Your task to perform on an android device: install app "LinkedIn" Image 0: 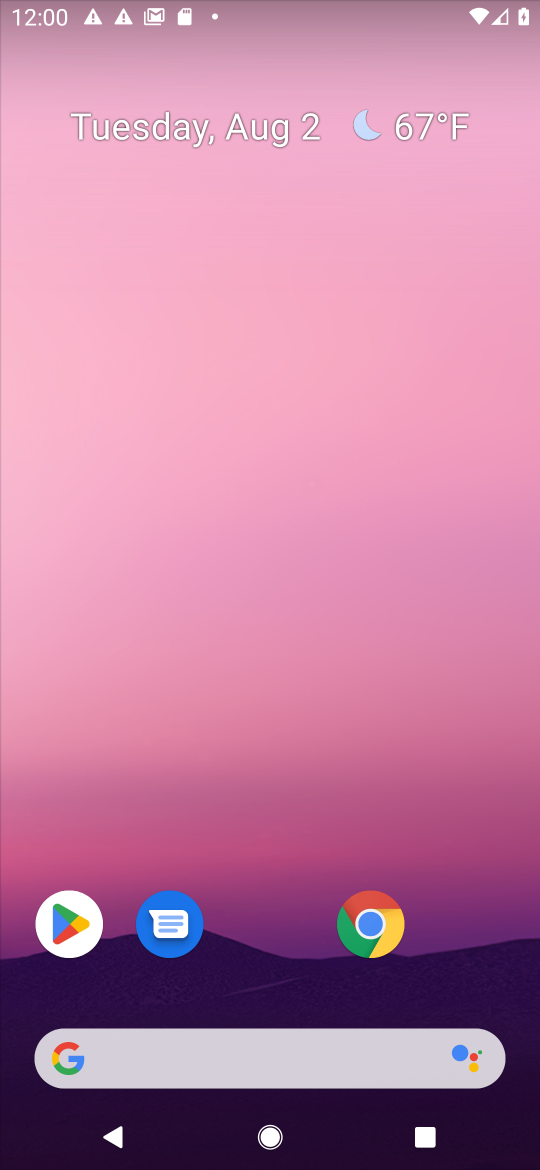
Step 0: press home button
Your task to perform on an android device: install app "LinkedIn" Image 1: 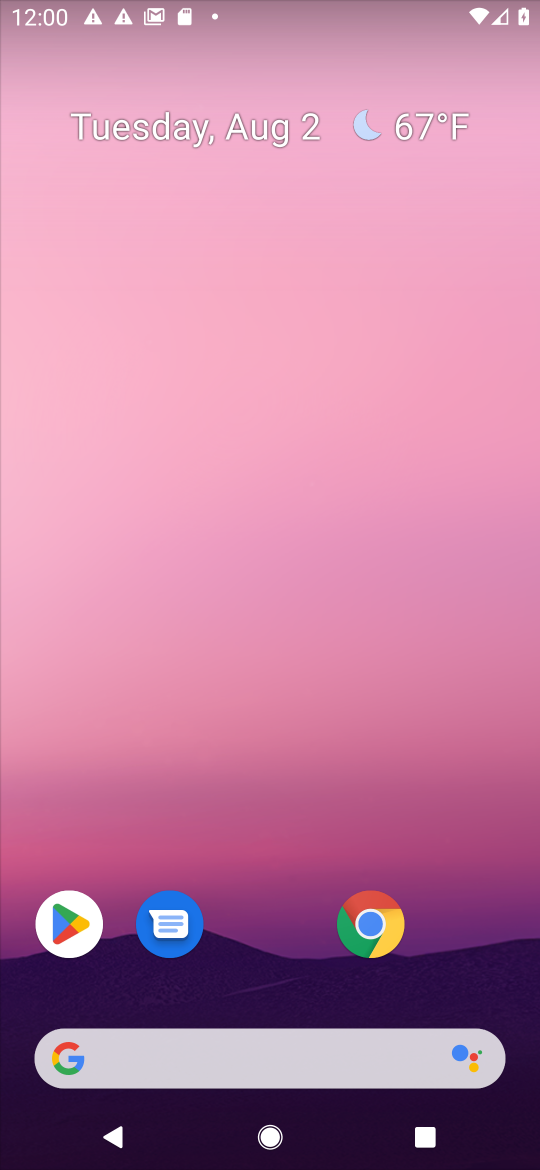
Step 1: click (53, 921)
Your task to perform on an android device: install app "LinkedIn" Image 2: 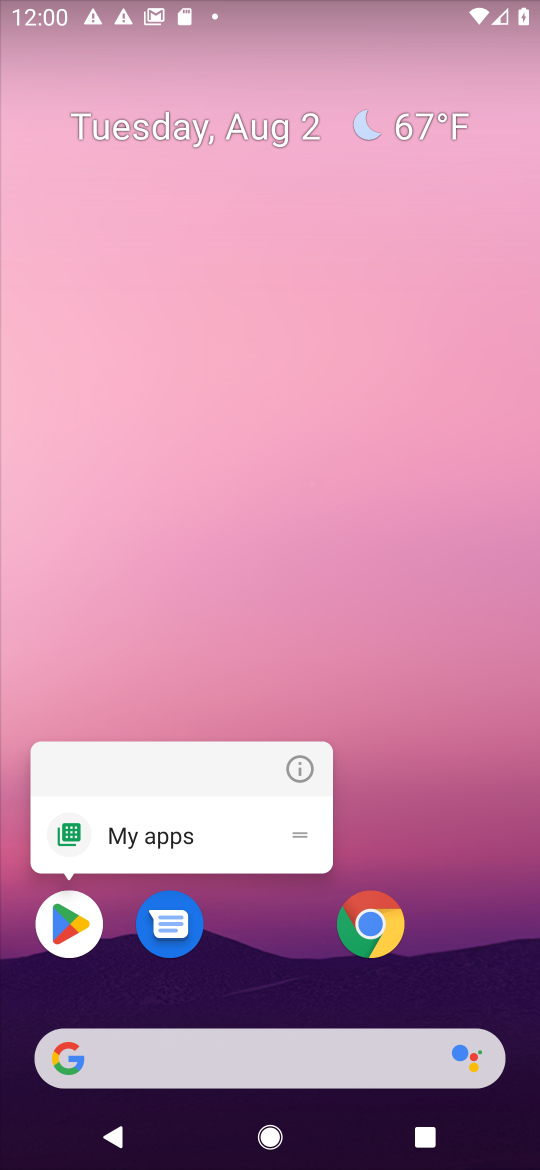
Step 2: click (76, 937)
Your task to perform on an android device: install app "LinkedIn" Image 3: 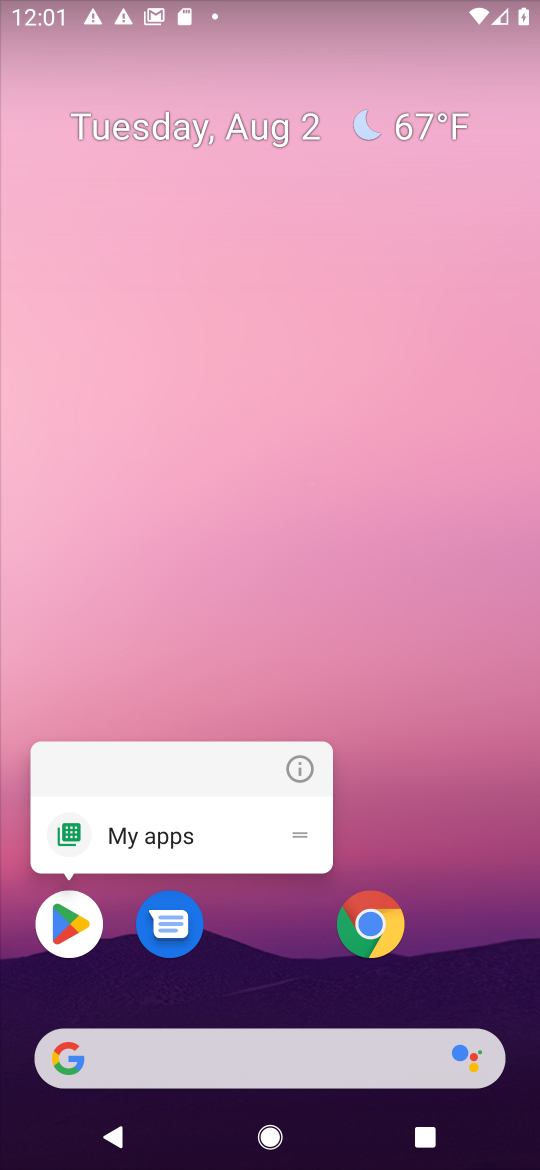
Step 3: click (58, 918)
Your task to perform on an android device: install app "LinkedIn" Image 4: 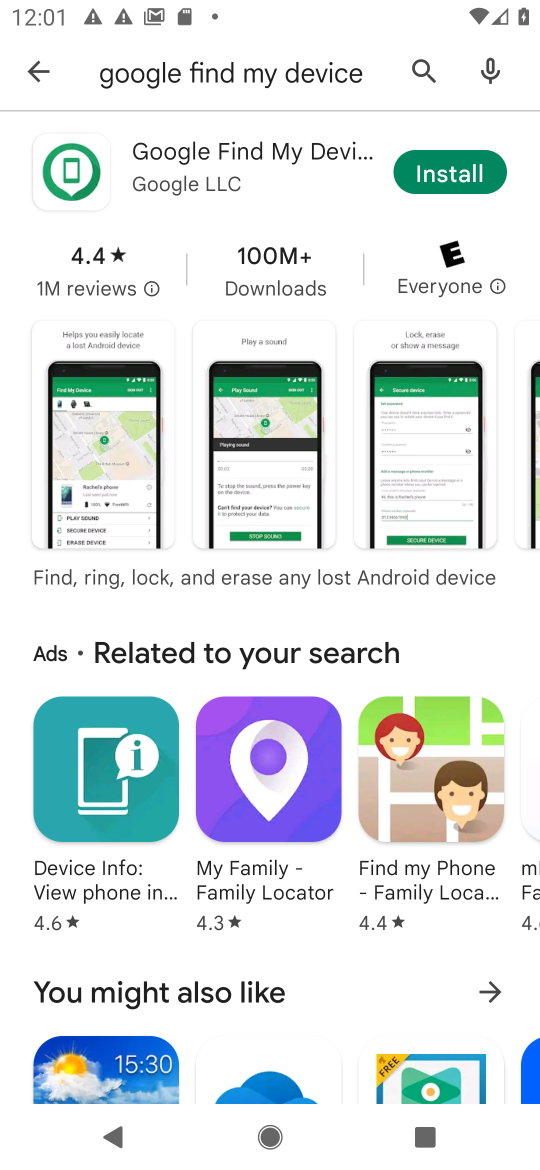
Step 4: click (415, 64)
Your task to perform on an android device: install app "LinkedIn" Image 5: 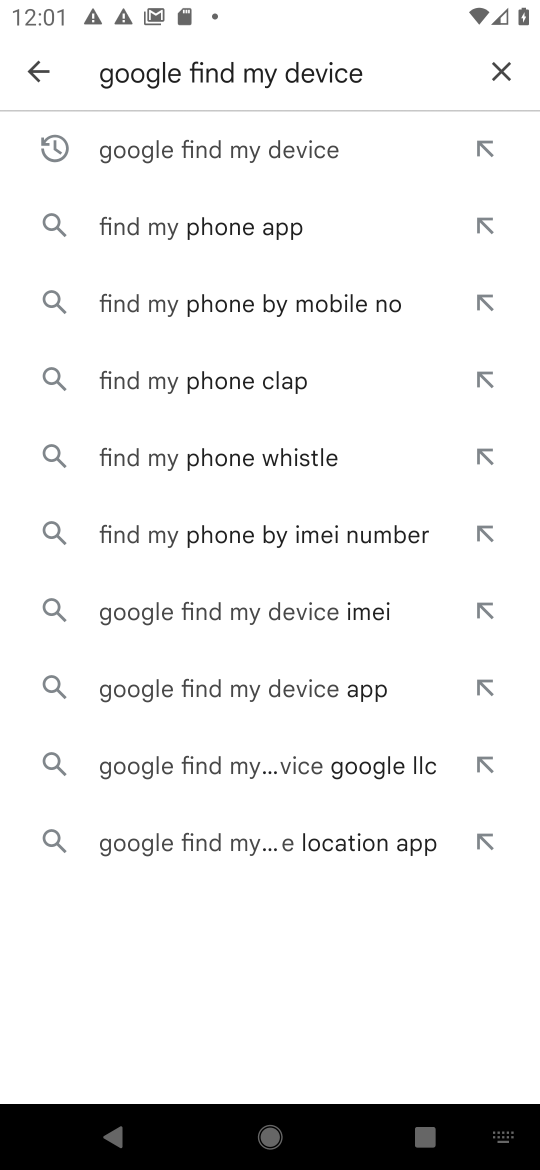
Step 5: click (487, 76)
Your task to perform on an android device: install app "LinkedIn" Image 6: 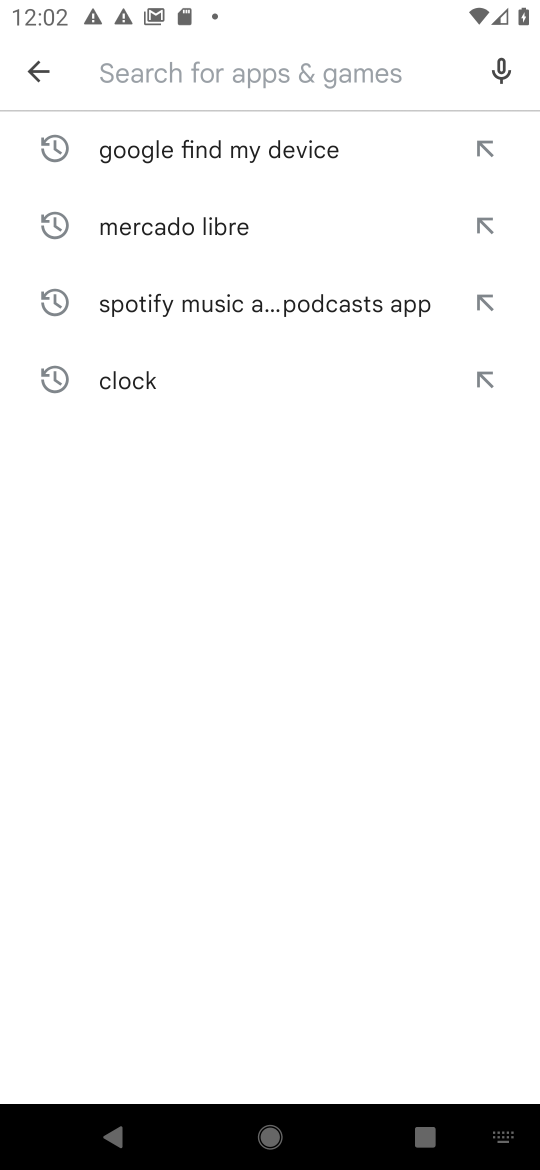
Step 6: type "LinkedIn"
Your task to perform on an android device: install app "LinkedIn" Image 7: 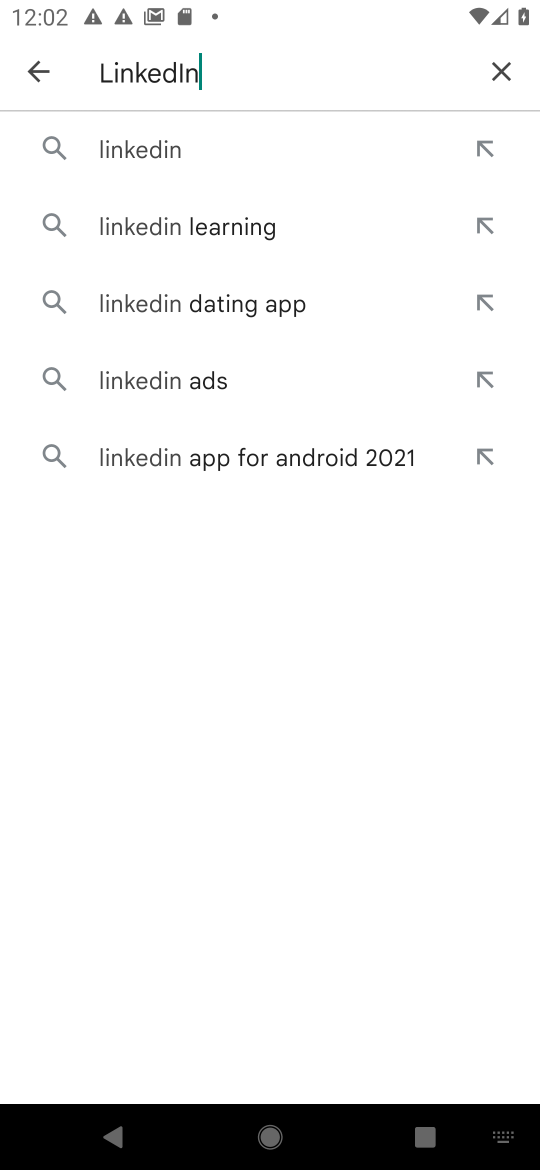
Step 7: click (156, 146)
Your task to perform on an android device: install app "LinkedIn" Image 8: 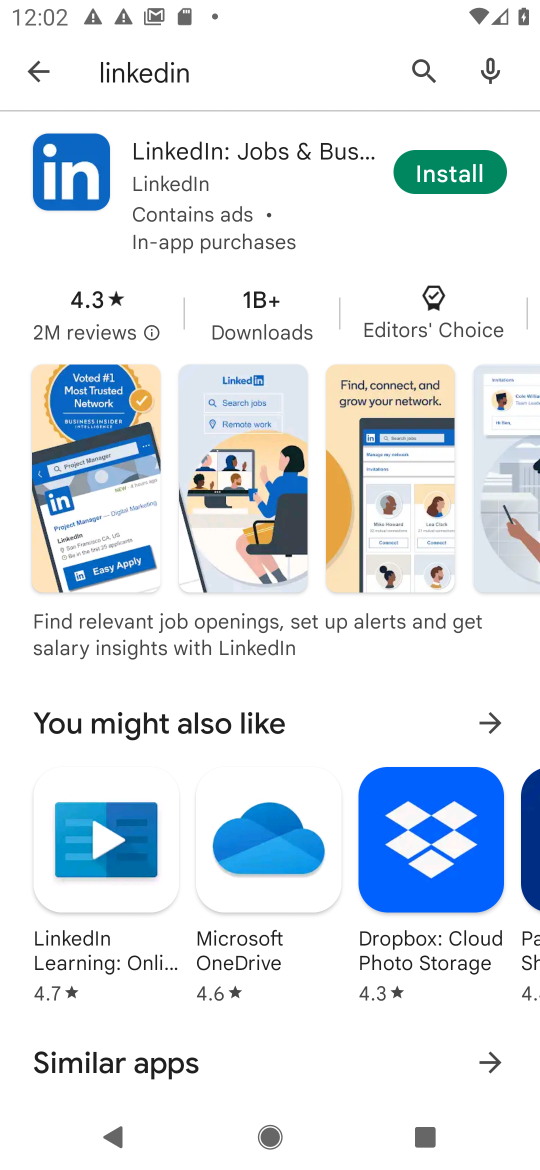
Step 8: click (462, 172)
Your task to perform on an android device: install app "LinkedIn" Image 9: 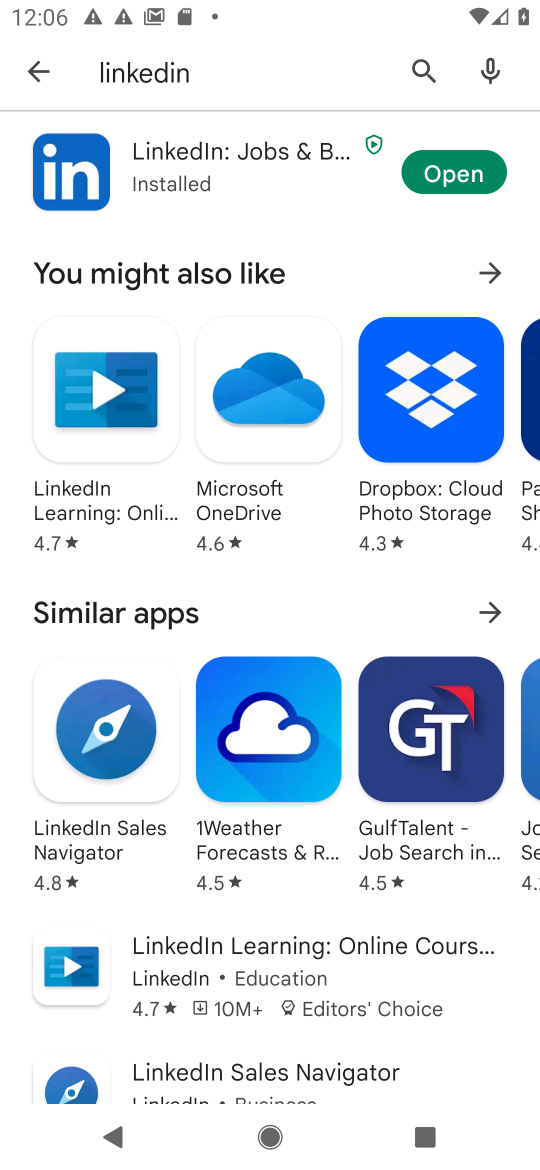
Step 9: click (449, 162)
Your task to perform on an android device: install app "LinkedIn" Image 10: 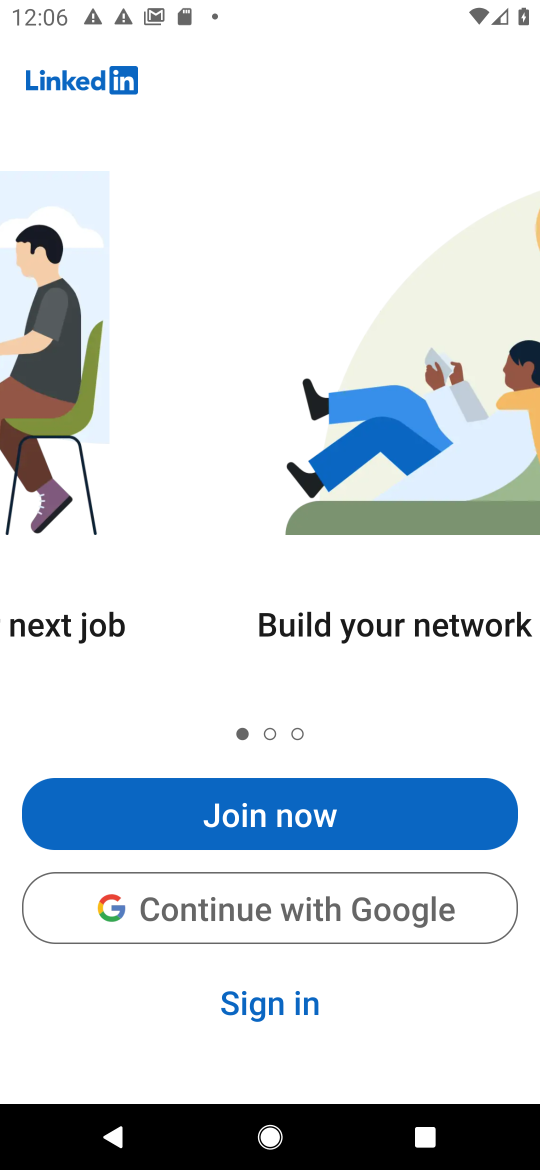
Step 10: click (279, 903)
Your task to perform on an android device: install app "LinkedIn" Image 11: 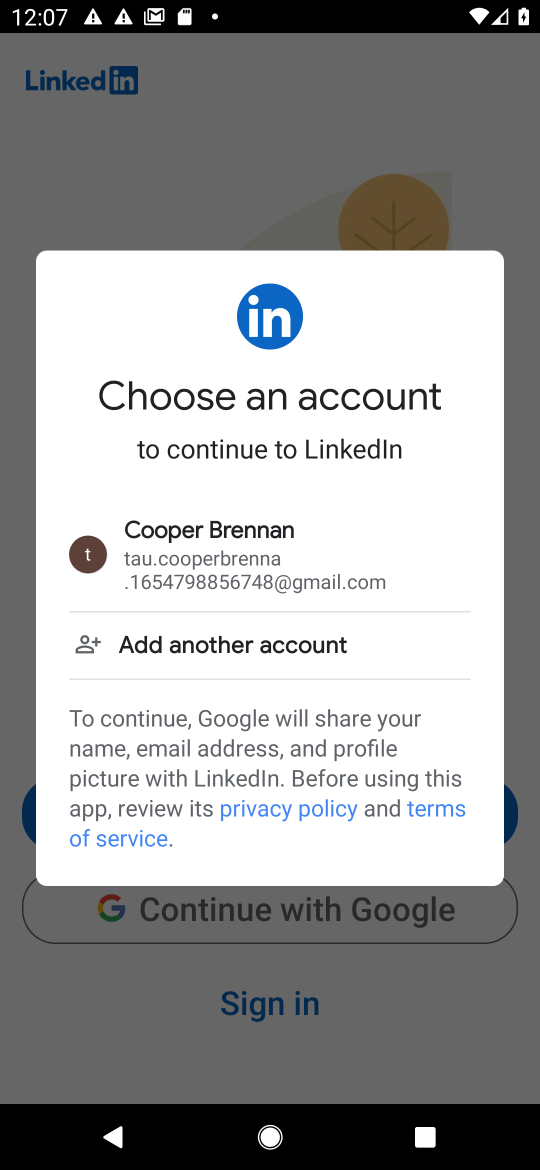
Step 11: click (221, 537)
Your task to perform on an android device: install app "LinkedIn" Image 12: 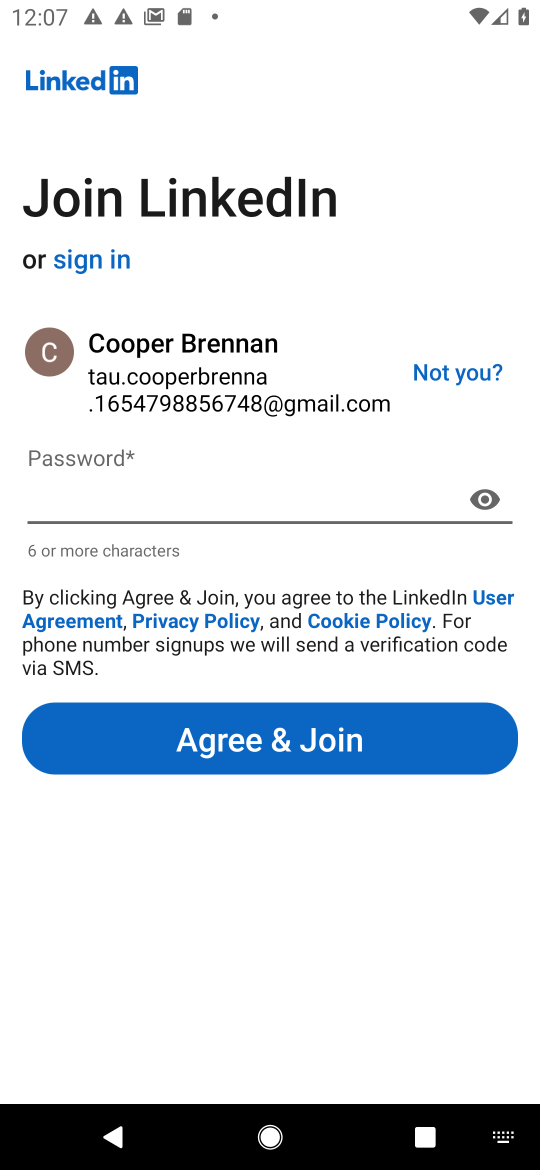
Step 12: click (299, 730)
Your task to perform on an android device: install app "LinkedIn" Image 13: 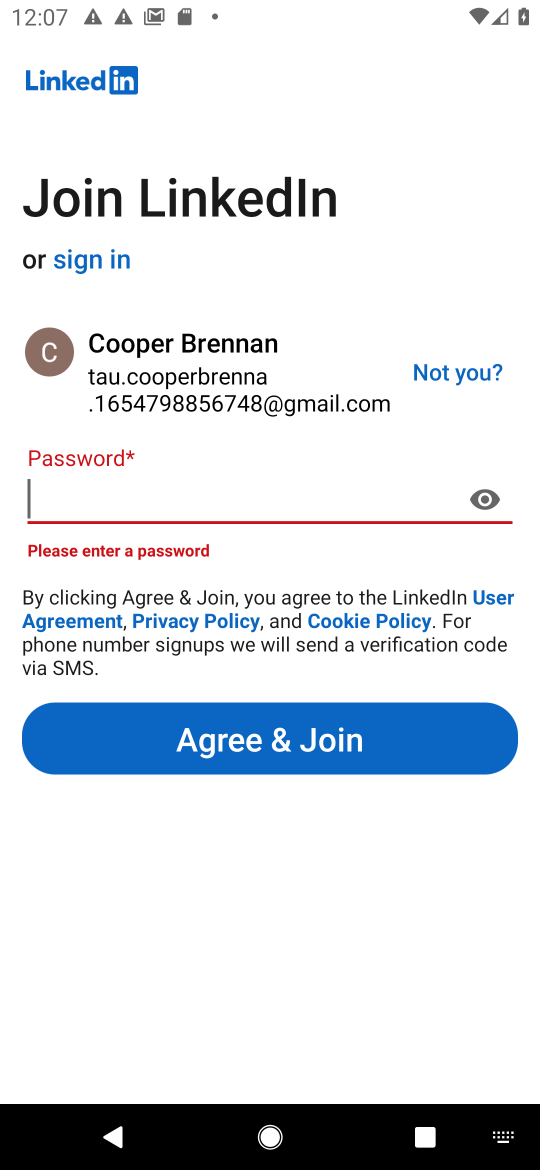
Step 13: task complete